Your task to perform on an android device: Open settings Image 0: 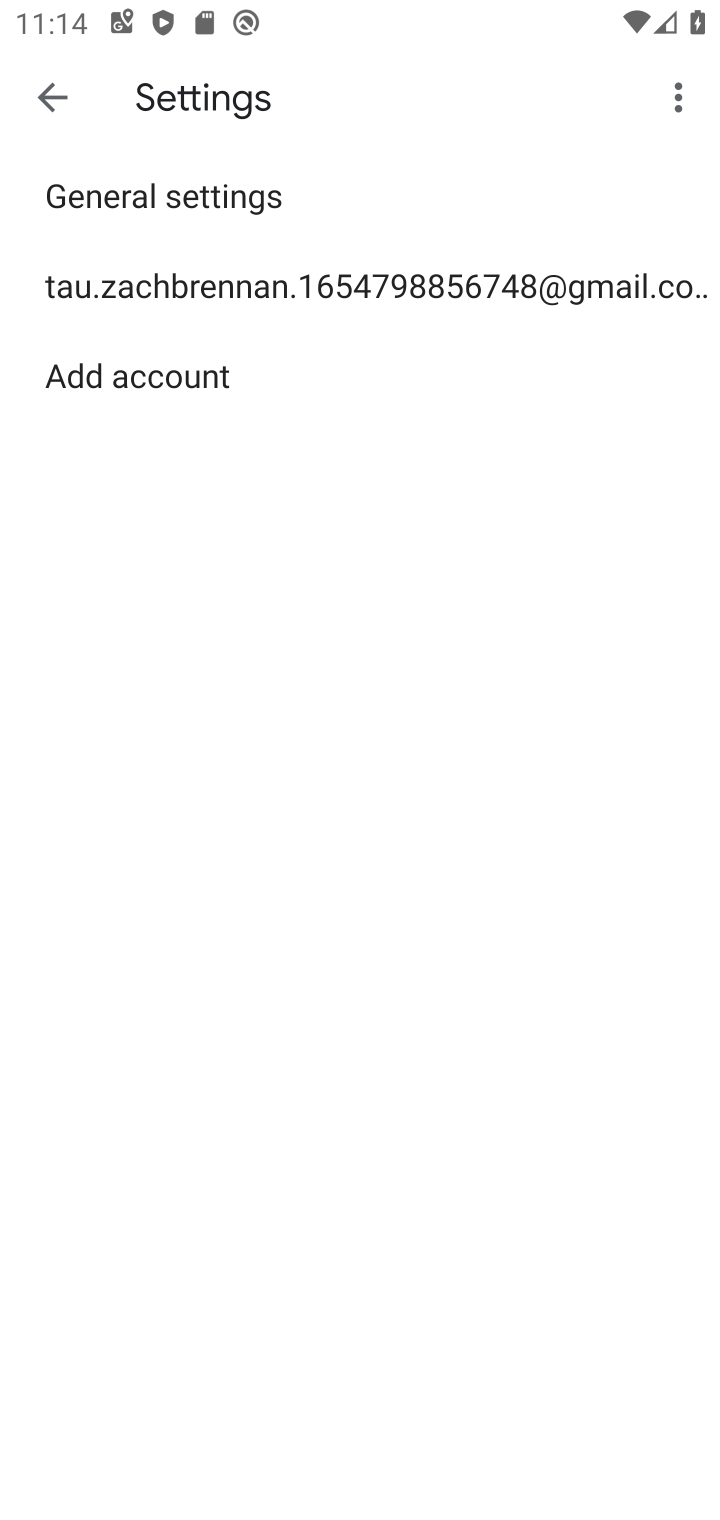
Step 0: press home button
Your task to perform on an android device: Open settings Image 1: 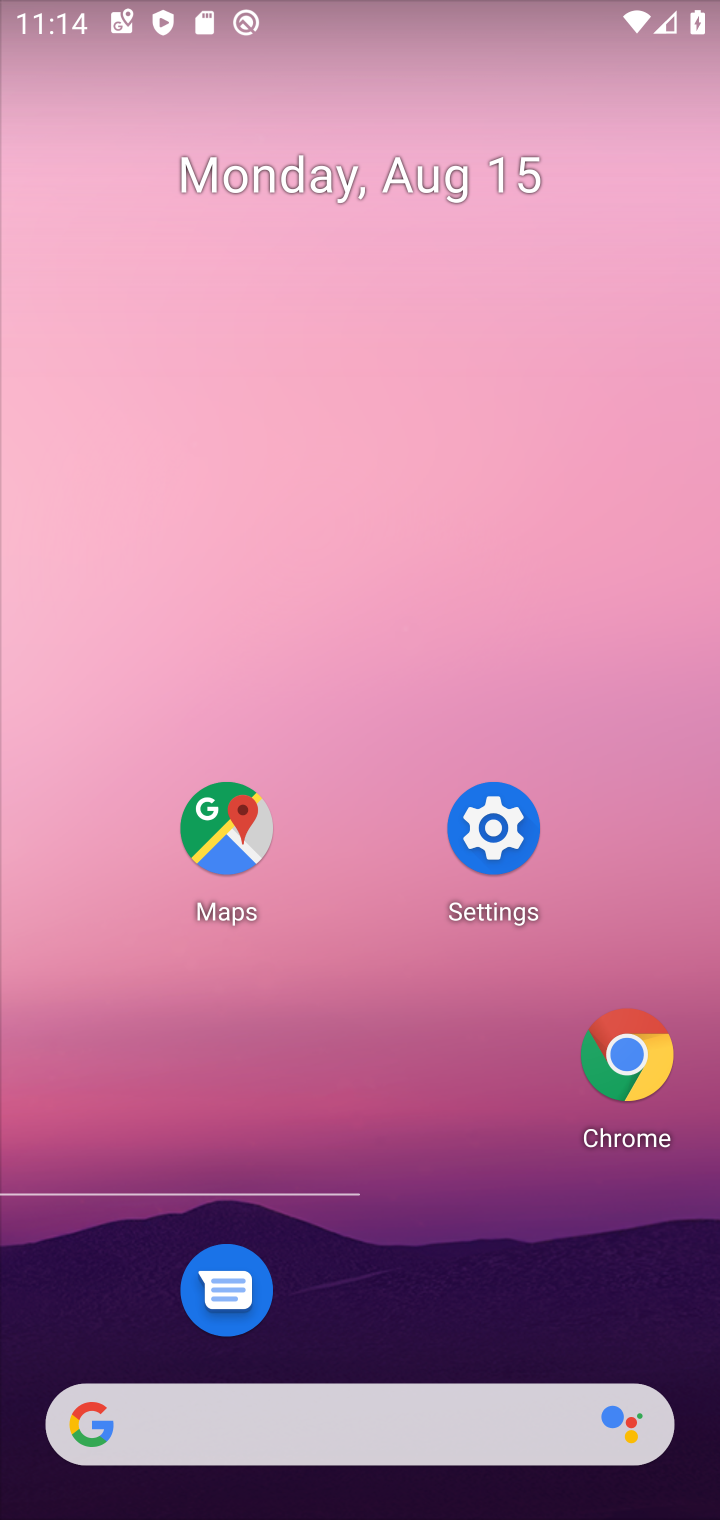
Step 1: click (496, 818)
Your task to perform on an android device: Open settings Image 2: 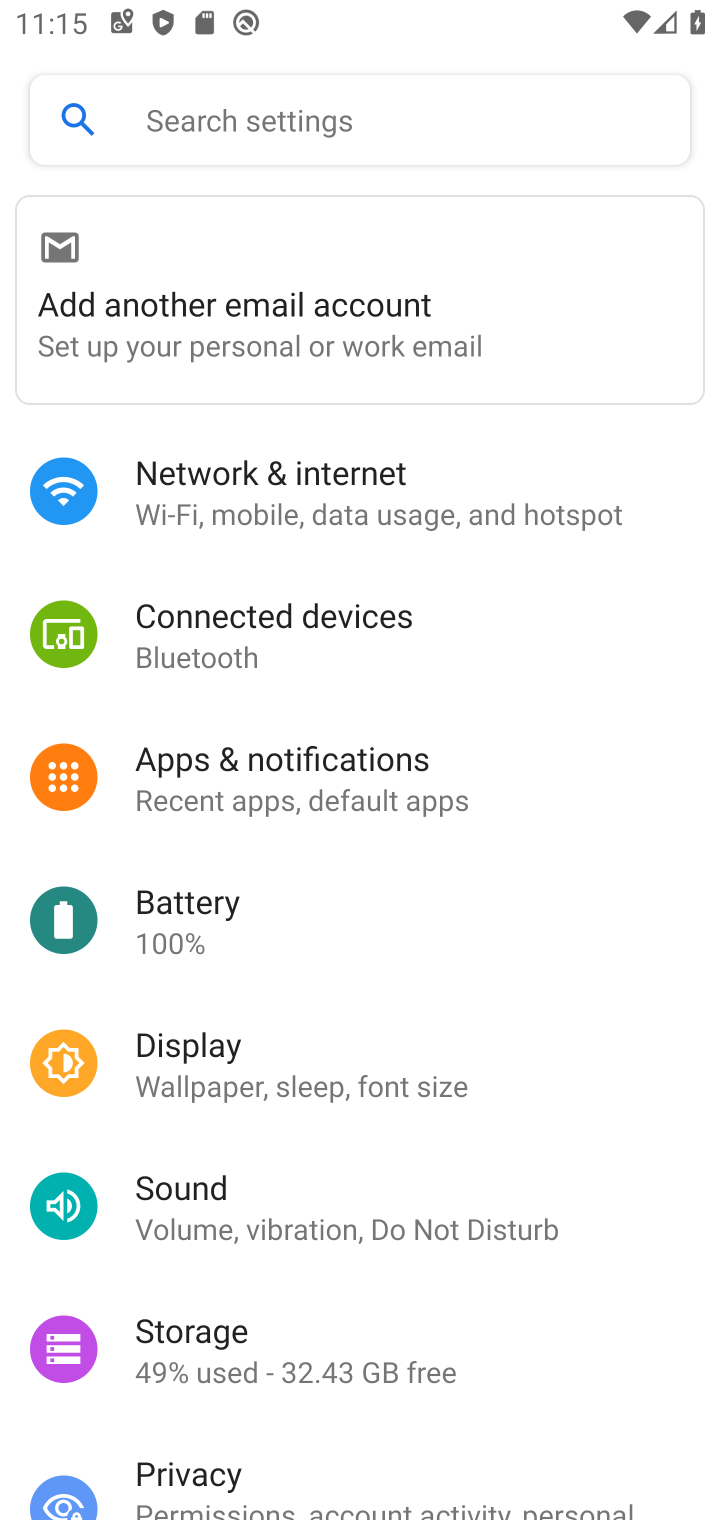
Step 2: task complete